Your task to perform on an android device: What's on my calendar today? Image 0: 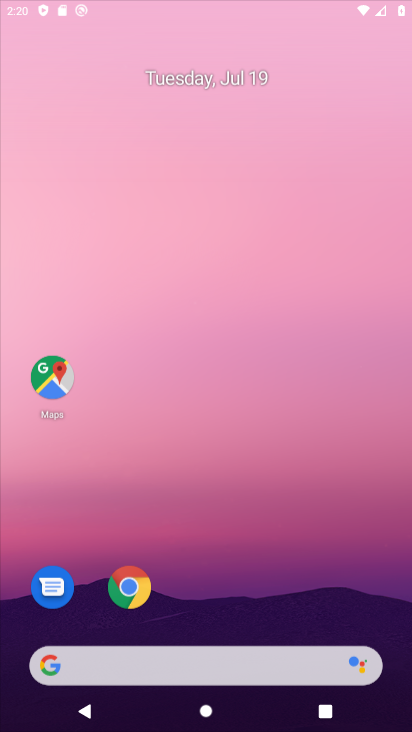
Step 0: press home button
Your task to perform on an android device: What's on my calendar today? Image 1: 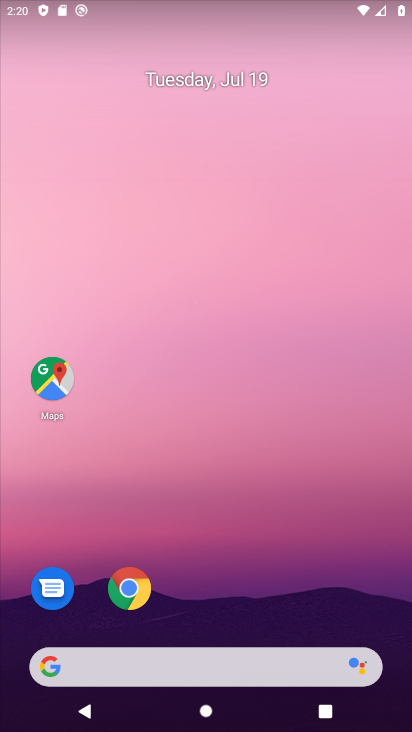
Step 1: drag from (234, 569) to (293, 174)
Your task to perform on an android device: What's on my calendar today? Image 2: 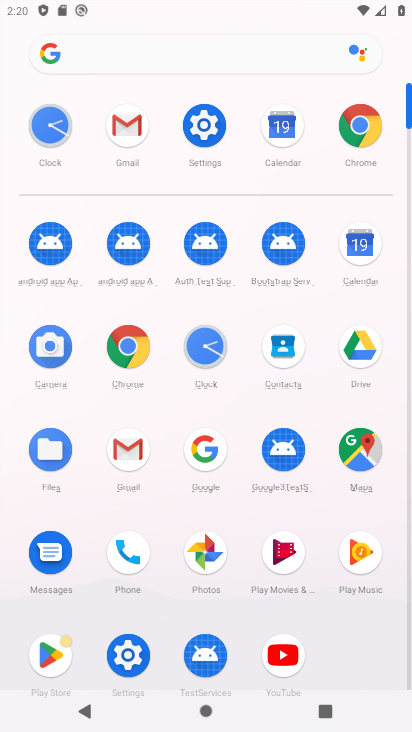
Step 2: click (366, 250)
Your task to perform on an android device: What's on my calendar today? Image 3: 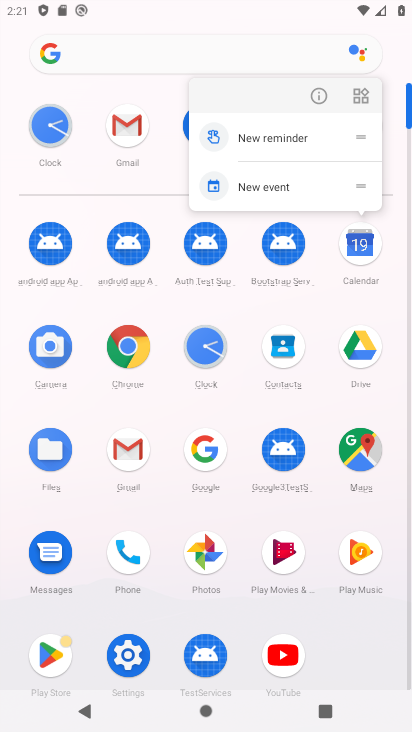
Step 3: click (366, 250)
Your task to perform on an android device: What's on my calendar today? Image 4: 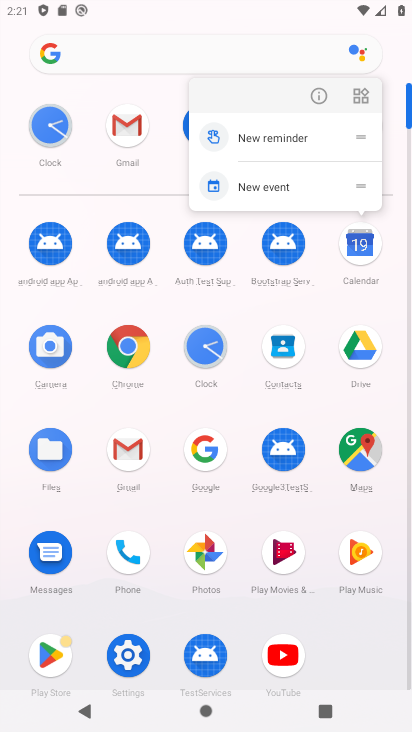
Step 4: click (361, 241)
Your task to perform on an android device: What's on my calendar today? Image 5: 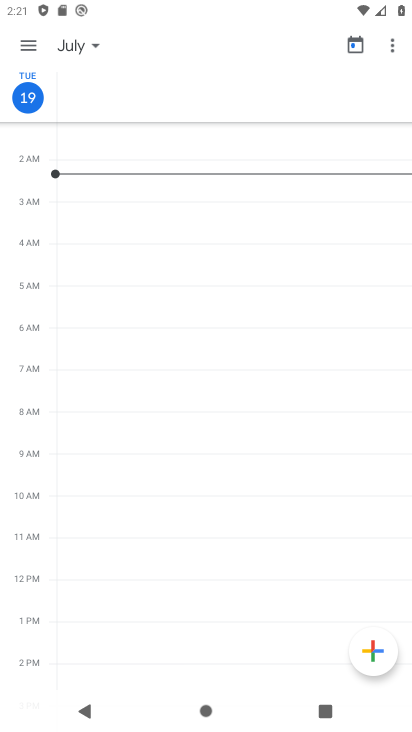
Step 5: click (74, 58)
Your task to perform on an android device: What's on my calendar today? Image 6: 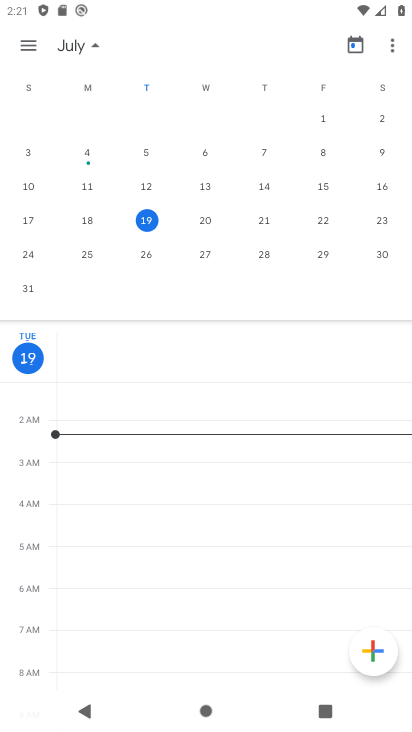
Step 6: click (147, 217)
Your task to perform on an android device: What's on my calendar today? Image 7: 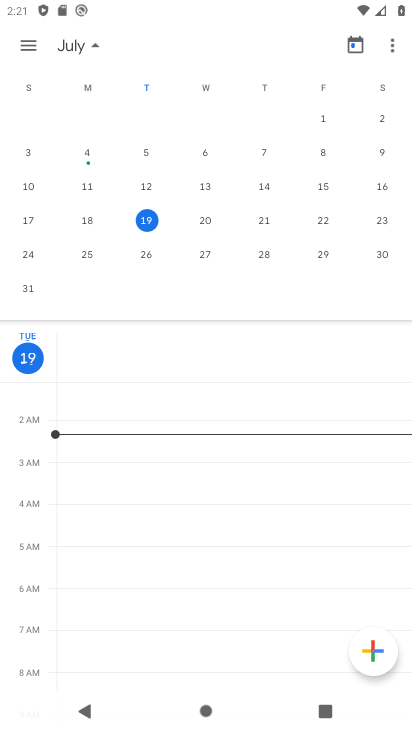
Step 7: task complete